Your task to perform on an android device: change text size in settings app Image 0: 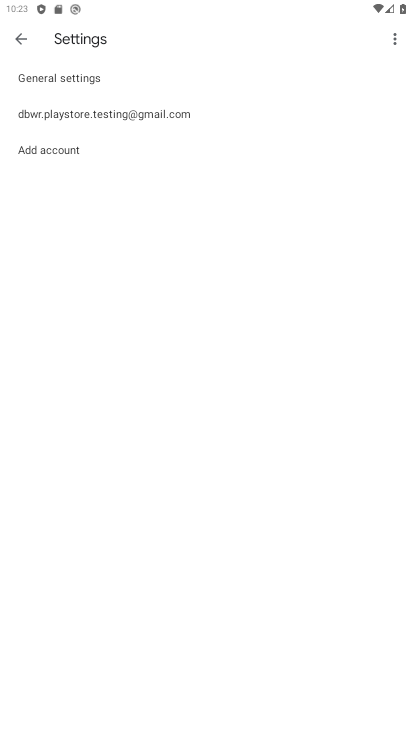
Step 0: press back button
Your task to perform on an android device: change text size in settings app Image 1: 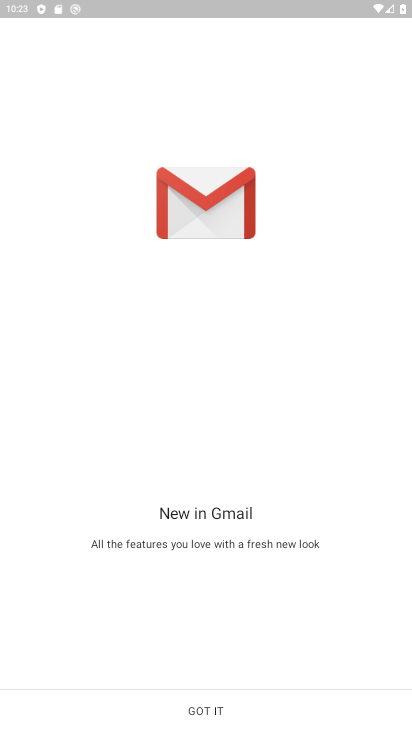
Step 1: click (221, 704)
Your task to perform on an android device: change text size in settings app Image 2: 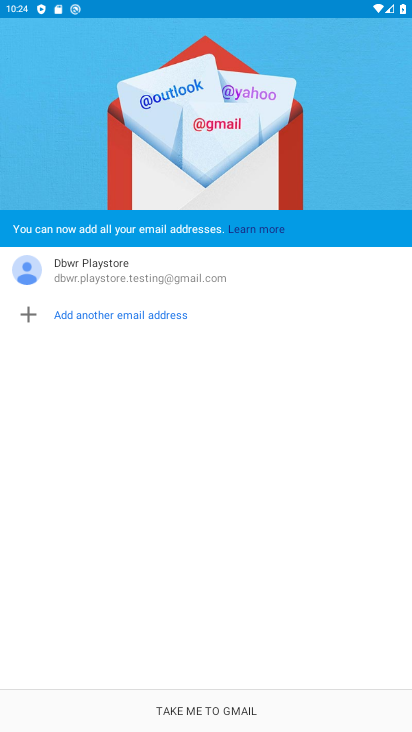
Step 2: press back button
Your task to perform on an android device: change text size in settings app Image 3: 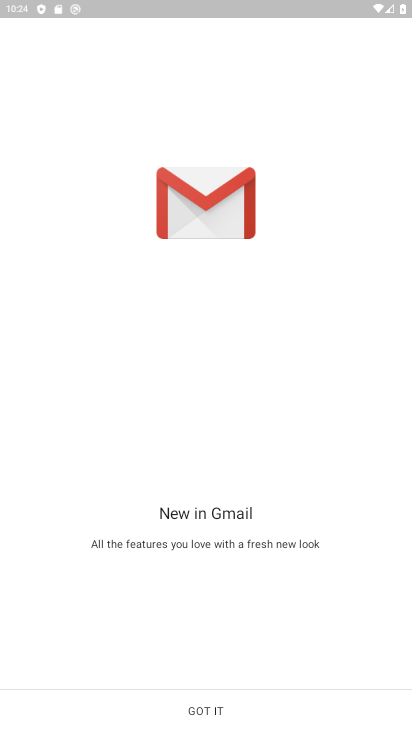
Step 3: click (211, 714)
Your task to perform on an android device: change text size in settings app Image 4: 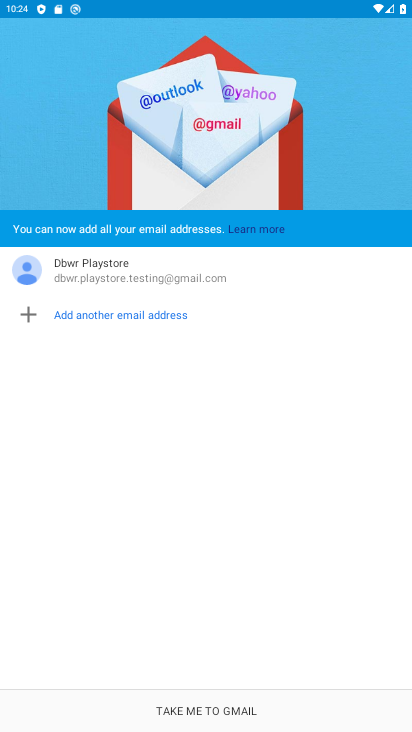
Step 4: press home button
Your task to perform on an android device: change text size in settings app Image 5: 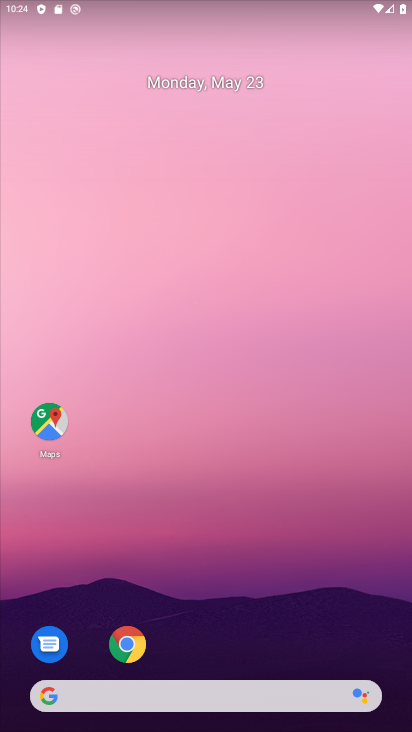
Step 5: drag from (275, 687) to (286, 123)
Your task to perform on an android device: change text size in settings app Image 6: 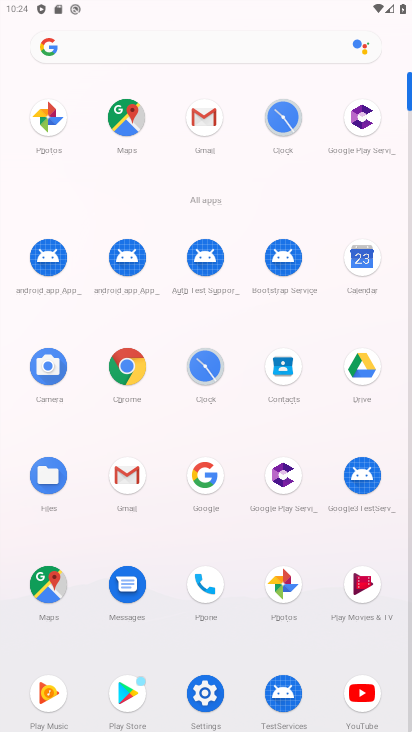
Step 6: click (206, 703)
Your task to perform on an android device: change text size in settings app Image 7: 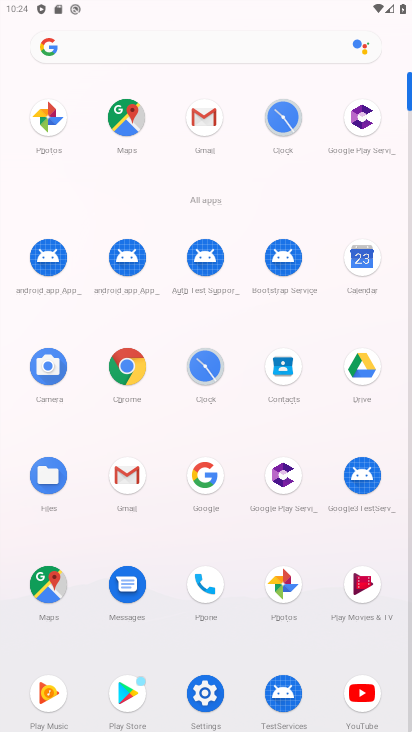
Step 7: click (214, 700)
Your task to perform on an android device: change text size in settings app Image 8: 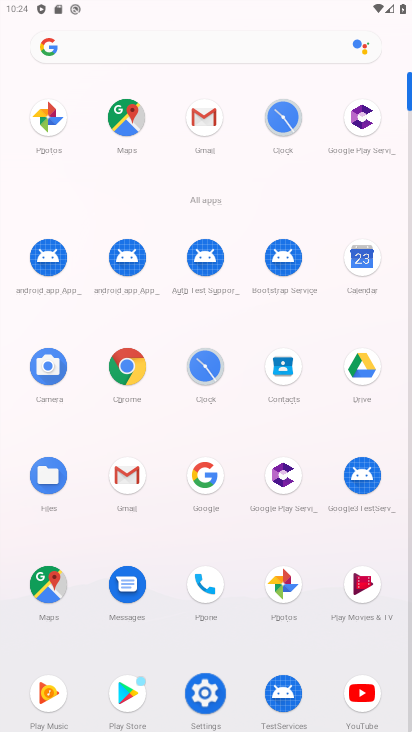
Step 8: click (216, 698)
Your task to perform on an android device: change text size in settings app Image 9: 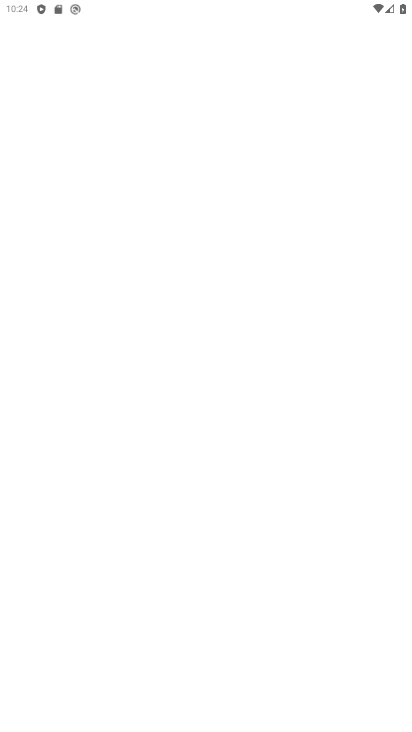
Step 9: click (227, 688)
Your task to perform on an android device: change text size in settings app Image 10: 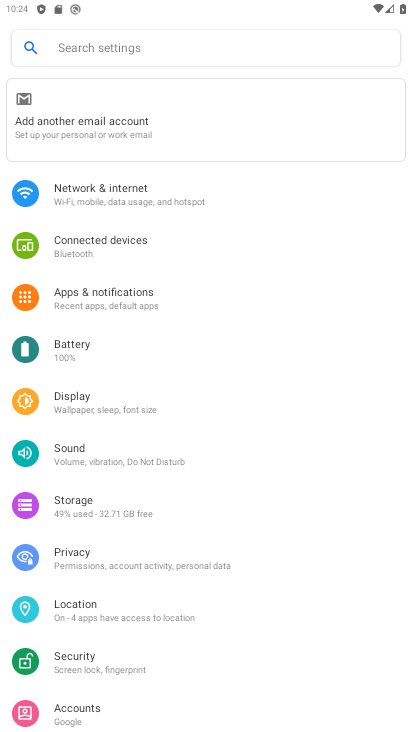
Step 10: click (76, 405)
Your task to perform on an android device: change text size in settings app Image 11: 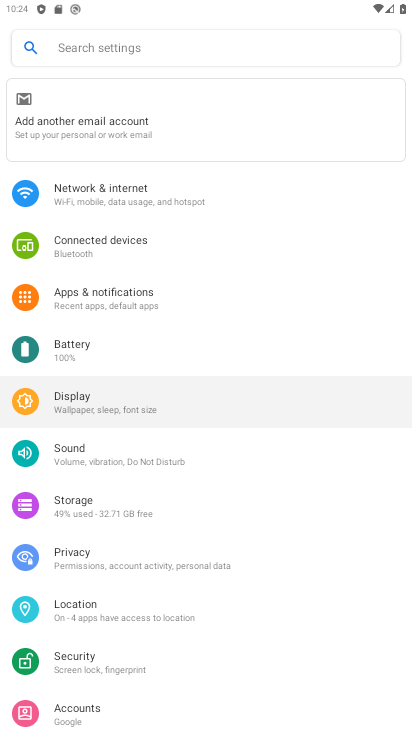
Step 11: click (81, 384)
Your task to perform on an android device: change text size in settings app Image 12: 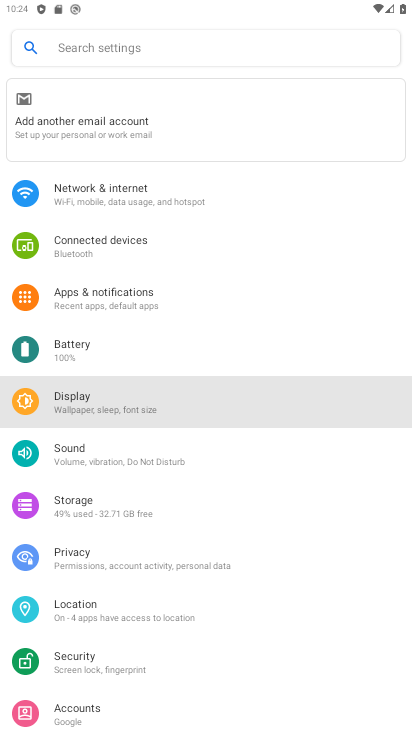
Step 12: click (104, 397)
Your task to perform on an android device: change text size in settings app Image 13: 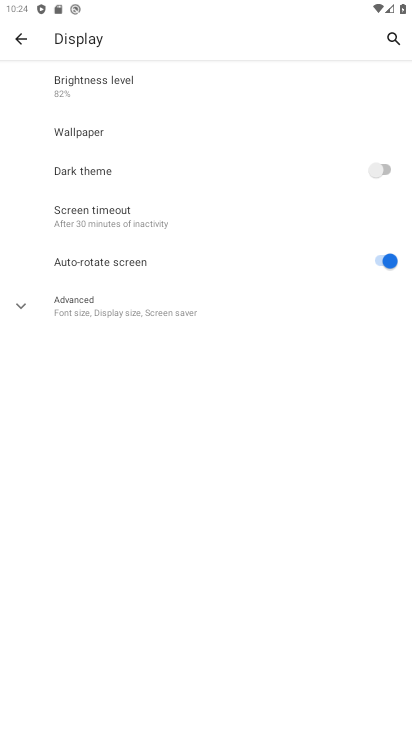
Step 13: click (109, 408)
Your task to perform on an android device: change text size in settings app Image 14: 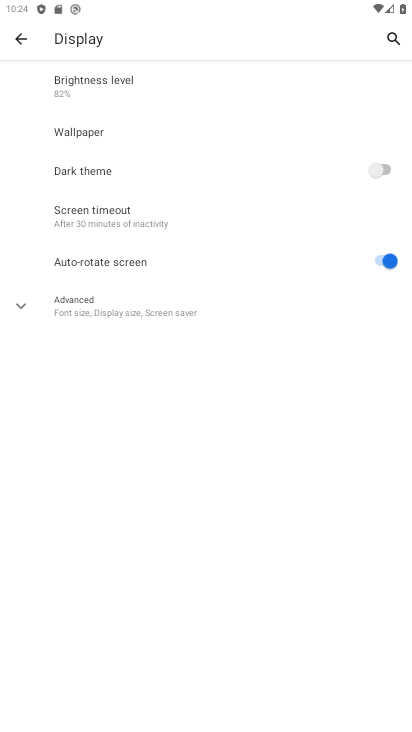
Step 14: click (107, 408)
Your task to perform on an android device: change text size in settings app Image 15: 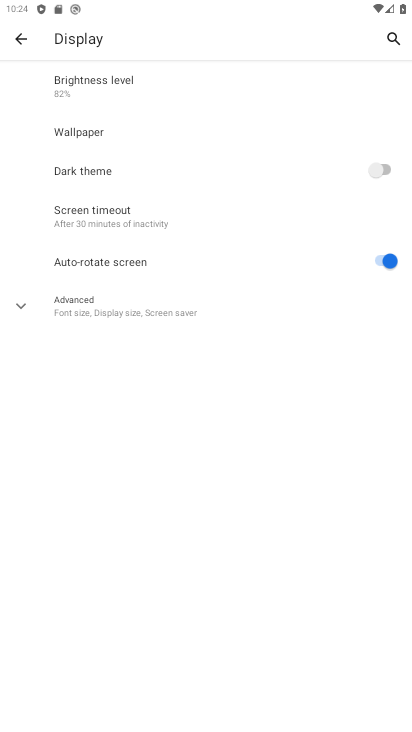
Step 15: click (109, 409)
Your task to perform on an android device: change text size in settings app Image 16: 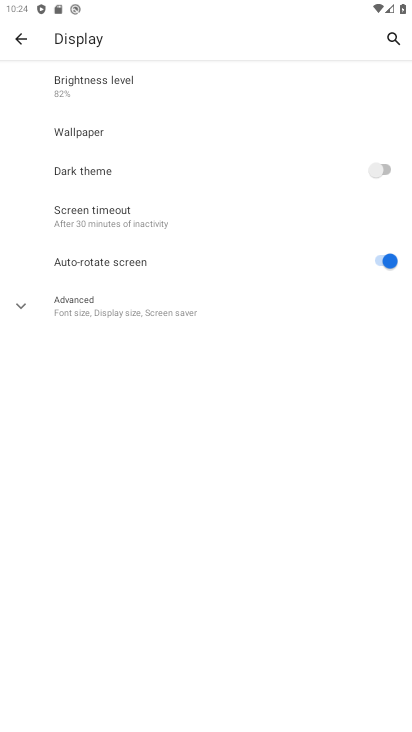
Step 16: click (113, 405)
Your task to perform on an android device: change text size in settings app Image 17: 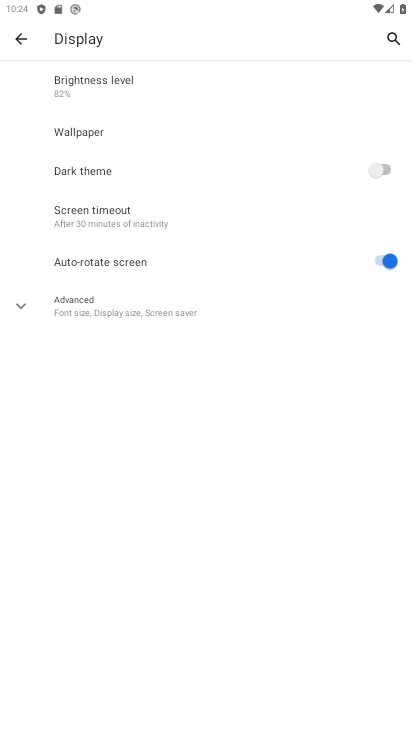
Step 17: click (116, 404)
Your task to perform on an android device: change text size in settings app Image 18: 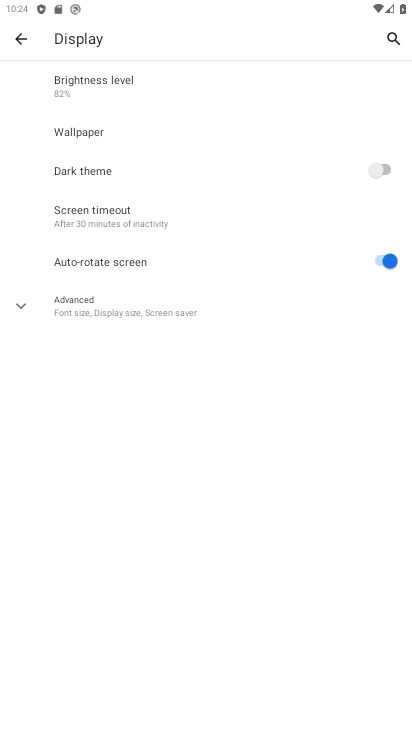
Step 18: click (124, 323)
Your task to perform on an android device: change text size in settings app Image 19: 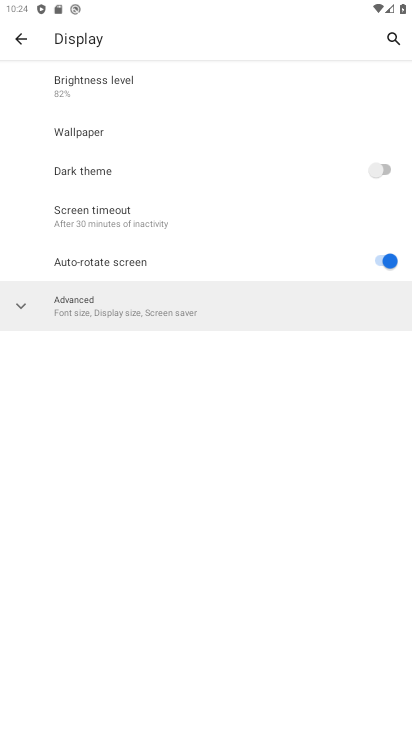
Step 19: click (115, 309)
Your task to perform on an android device: change text size in settings app Image 20: 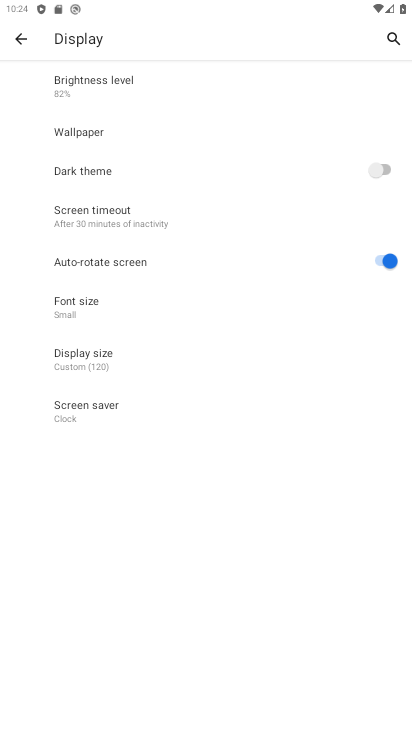
Step 20: click (78, 345)
Your task to perform on an android device: change text size in settings app Image 21: 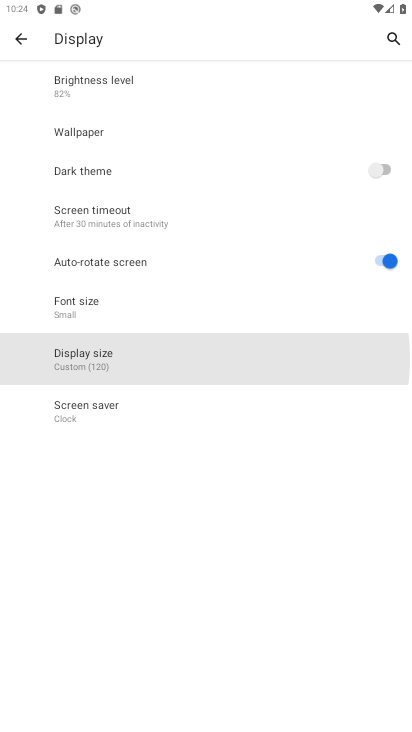
Step 21: click (79, 344)
Your task to perform on an android device: change text size in settings app Image 22: 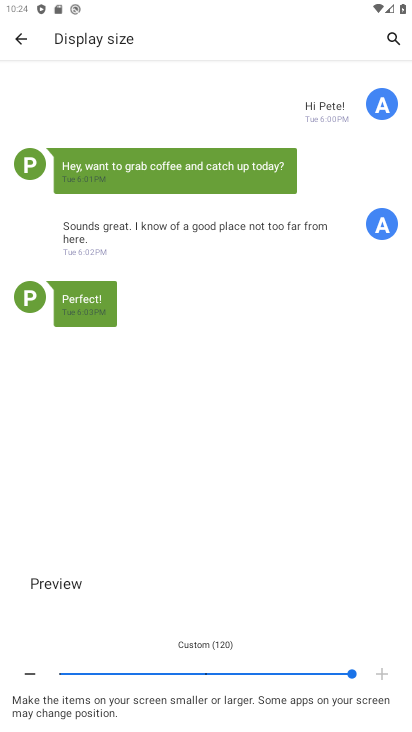
Step 22: click (19, 34)
Your task to perform on an android device: change text size in settings app Image 23: 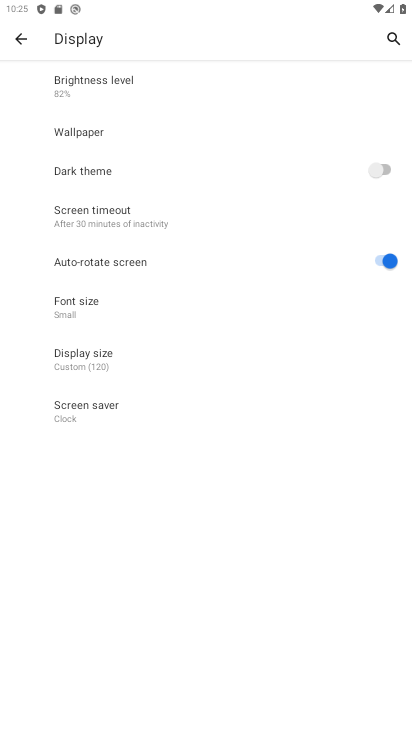
Step 23: click (77, 304)
Your task to perform on an android device: change text size in settings app Image 24: 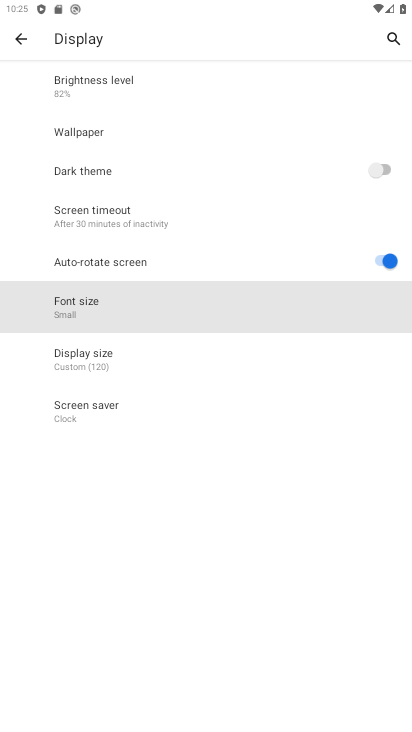
Step 24: click (79, 301)
Your task to perform on an android device: change text size in settings app Image 25: 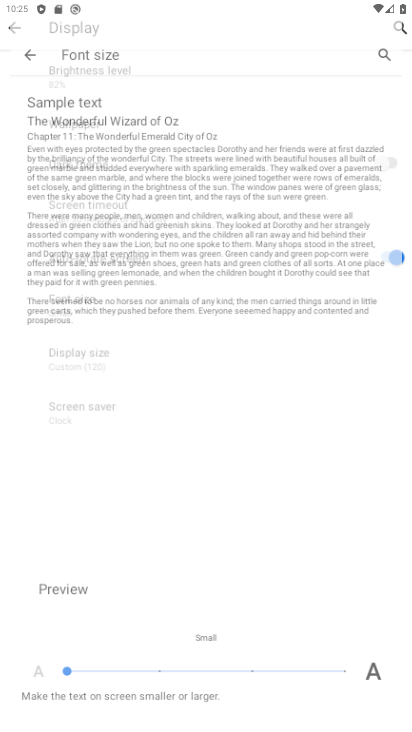
Step 25: click (80, 300)
Your task to perform on an android device: change text size in settings app Image 26: 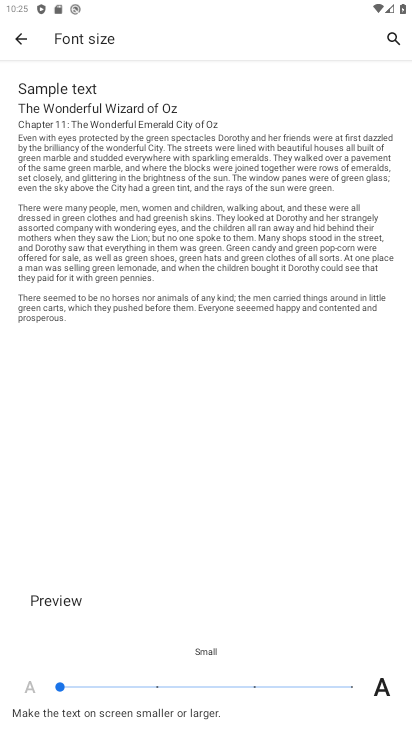
Step 26: click (156, 678)
Your task to perform on an android device: change text size in settings app Image 27: 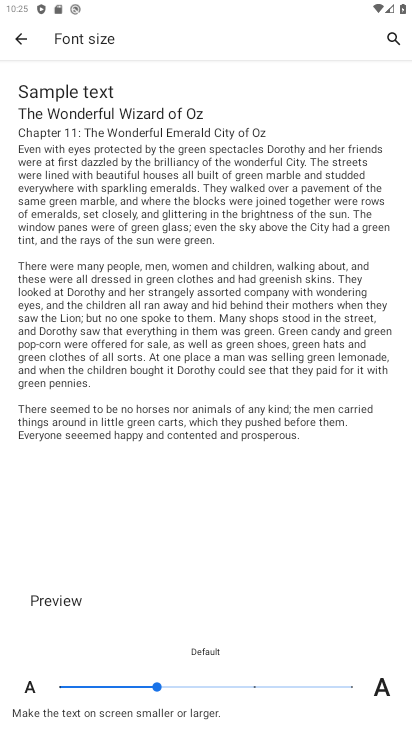
Step 27: click (160, 679)
Your task to perform on an android device: change text size in settings app Image 28: 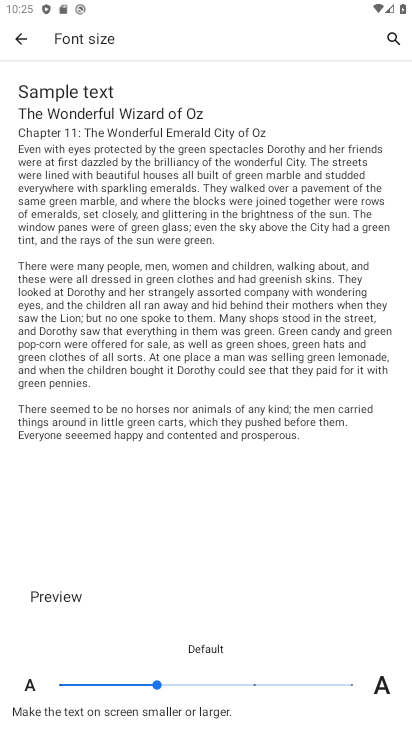
Step 28: task complete